Your task to perform on an android device: View the shopping cart on bestbuy.com. Search for razer blade on bestbuy.com, select the first entry, and add it to the cart. Image 0: 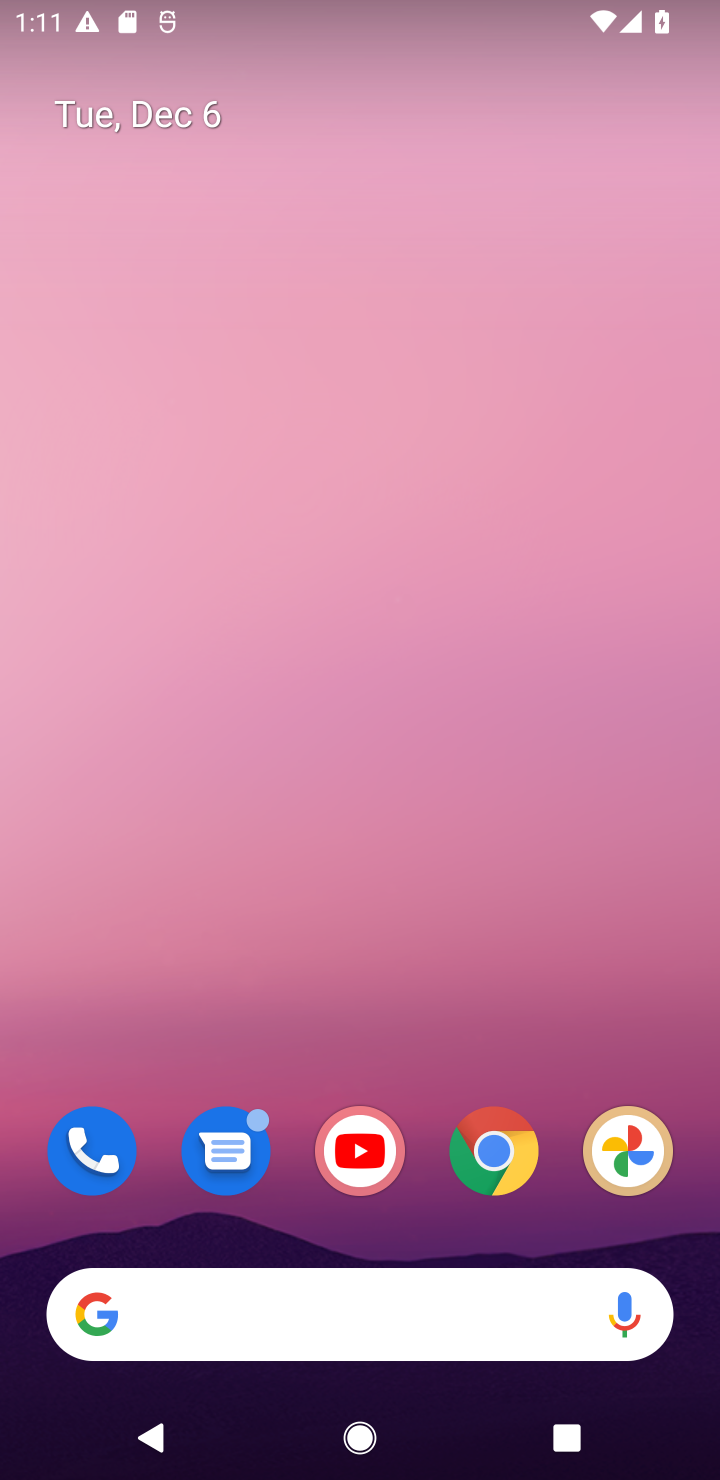
Step 0: click (509, 1149)
Your task to perform on an android device: View the shopping cart on bestbuy.com. Search for razer blade on bestbuy.com, select the first entry, and add it to the cart. Image 1: 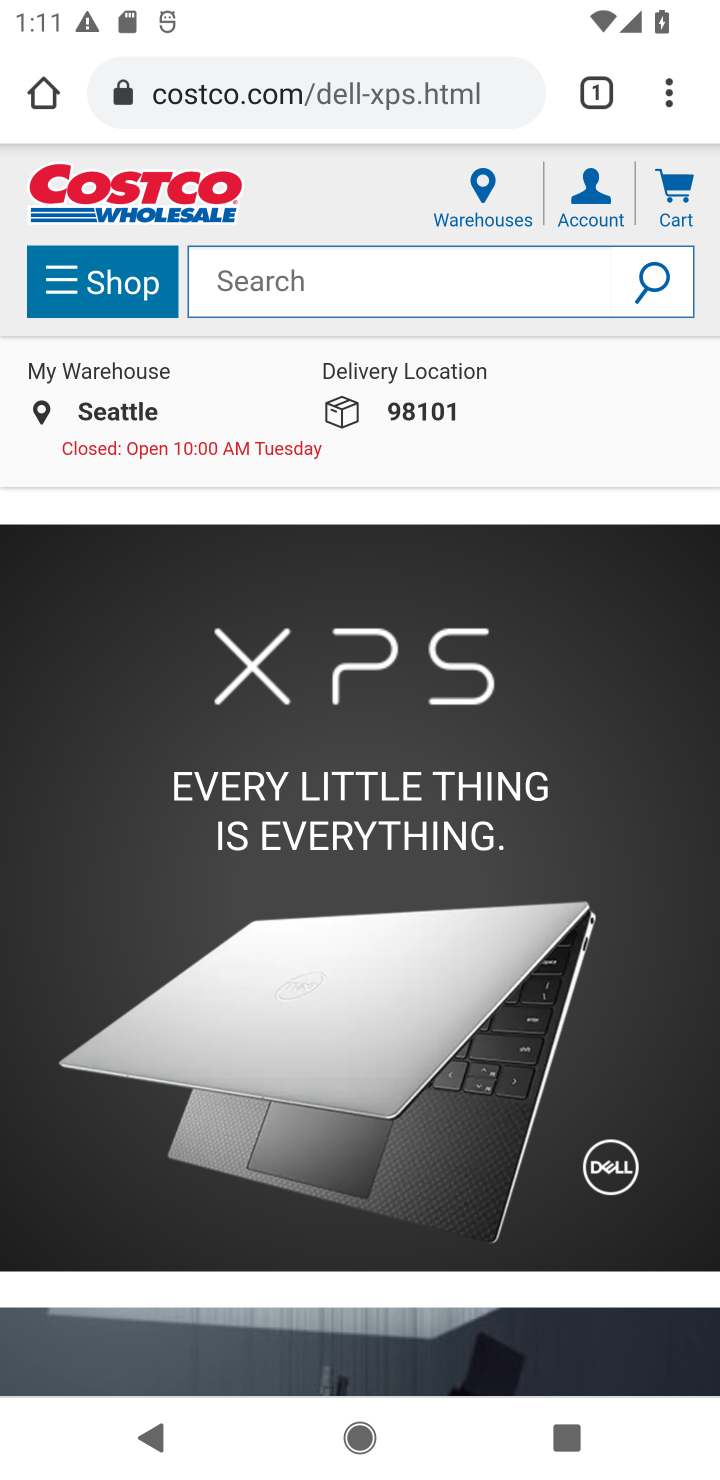
Step 1: click (214, 106)
Your task to perform on an android device: View the shopping cart on bestbuy.com. Search for razer blade on bestbuy.com, select the first entry, and add it to the cart. Image 2: 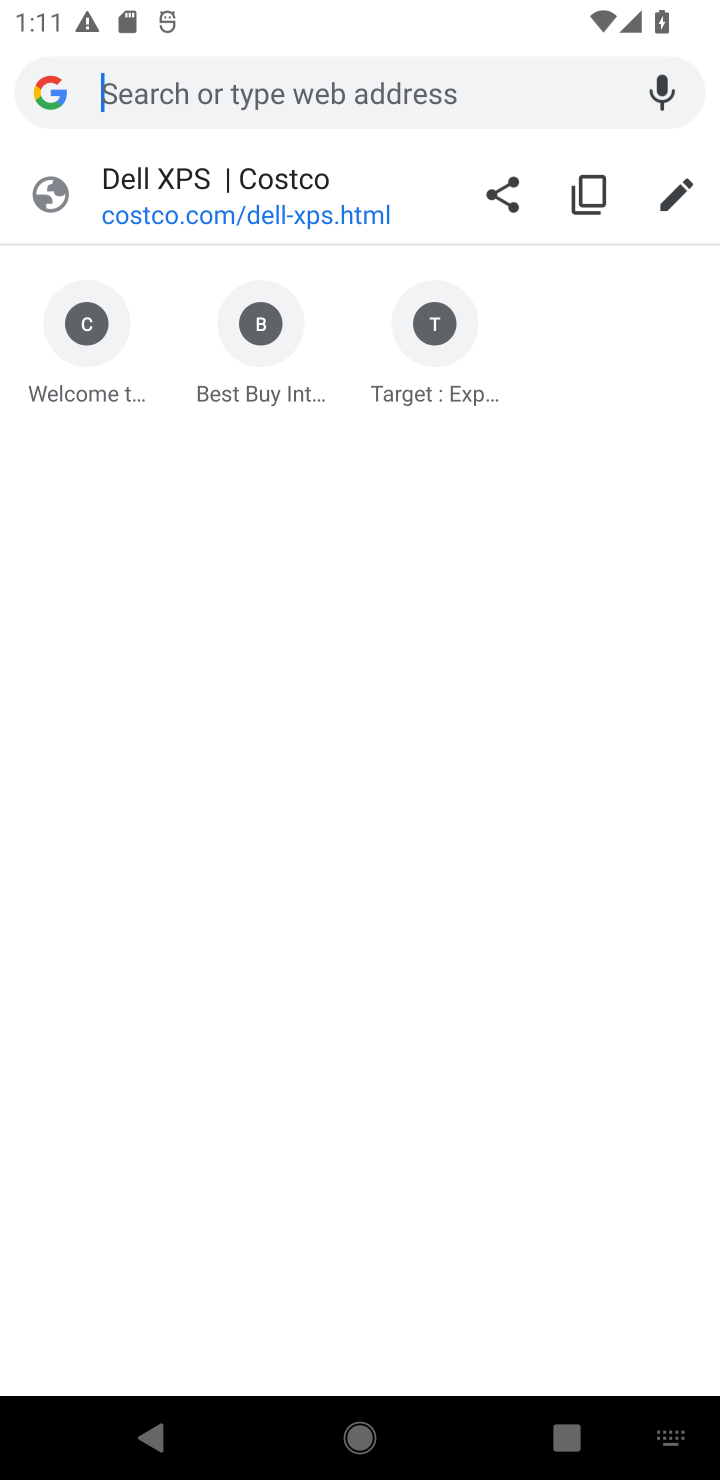
Step 2: click (261, 351)
Your task to perform on an android device: View the shopping cart on bestbuy.com. Search for razer blade on bestbuy.com, select the first entry, and add it to the cart. Image 3: 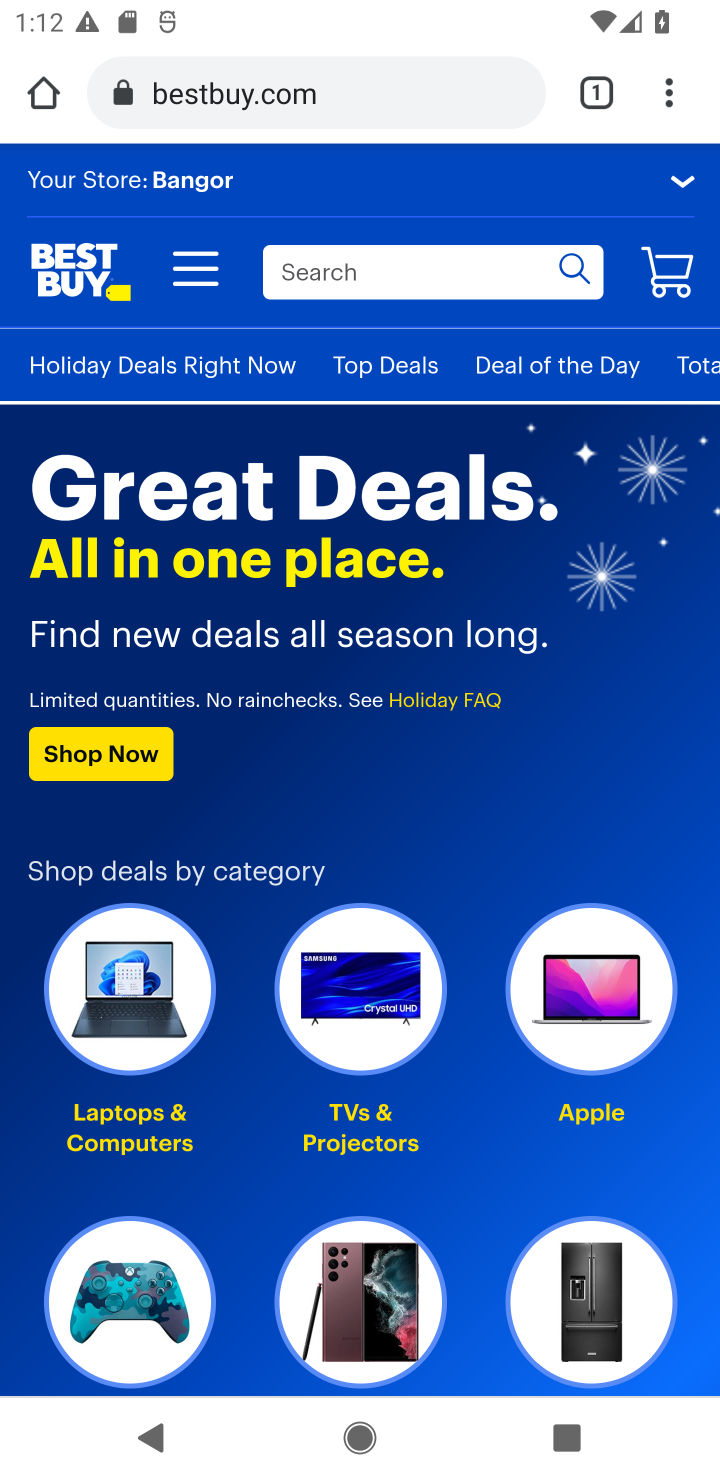
Step 3: click (666, 256)
Your task to perform on an android device: View the shopping cart on bestbuy.com. Search for razer blade on bestbuy.com, select the first entry, and add it to the cart. Image 4: 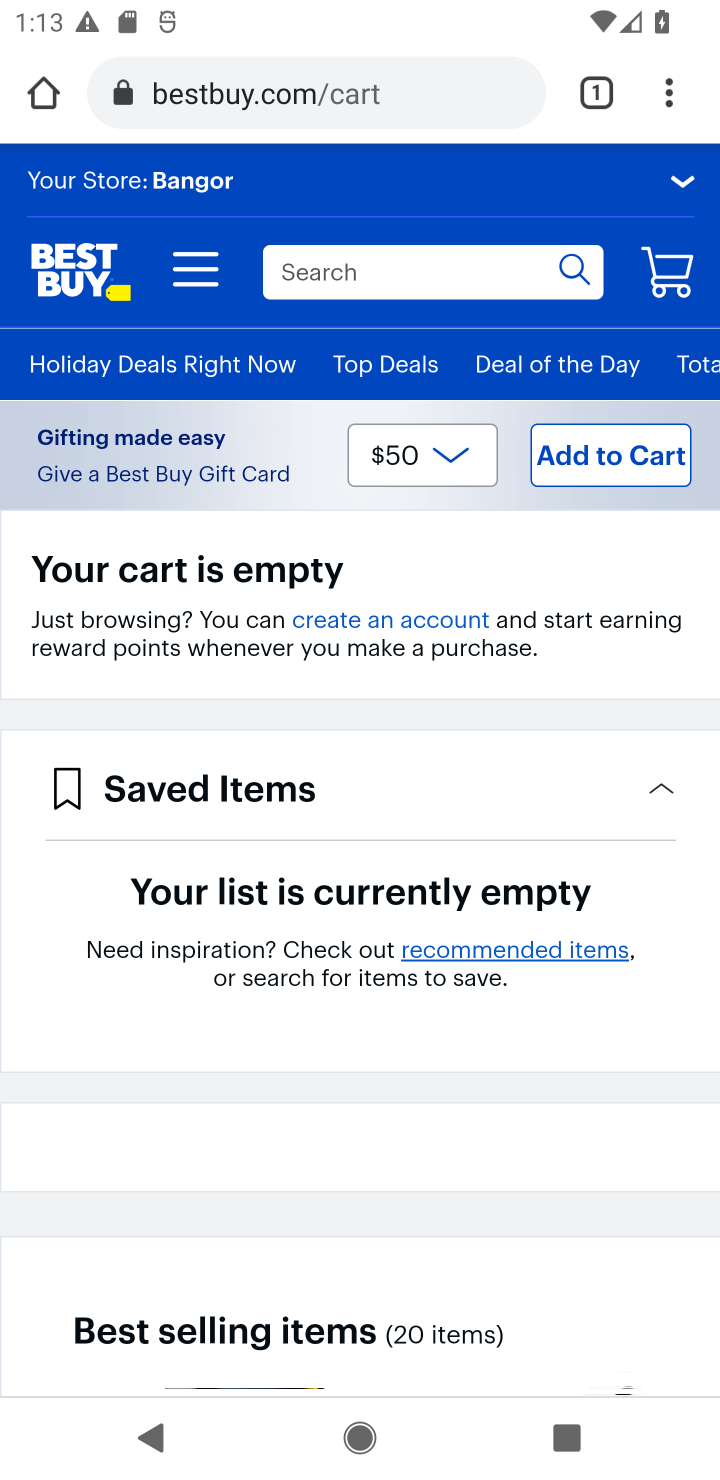
Step 4: click (358, 271)
Your task to perform on an android device: View the shopping cart on bestbuy.com. Search for razer blade on bestbuy.com, select the first entry, and add it to the cart. Image 5: 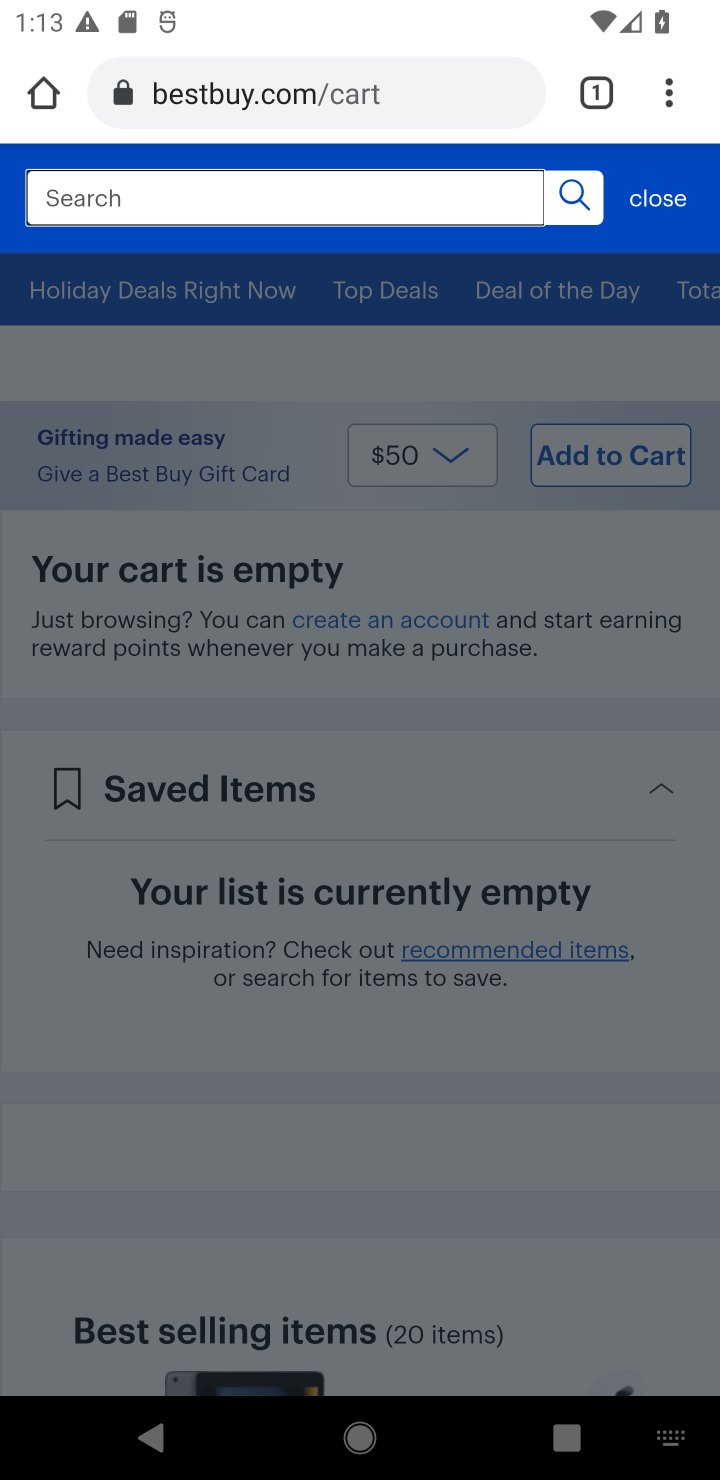
Step 5: type "razer blade "
Your task to perform on an android device: View the shopping cart on bestbuy.com. Search for razer blade on bestbuy.com, select the first entry, and add it to the cart. Image 6: 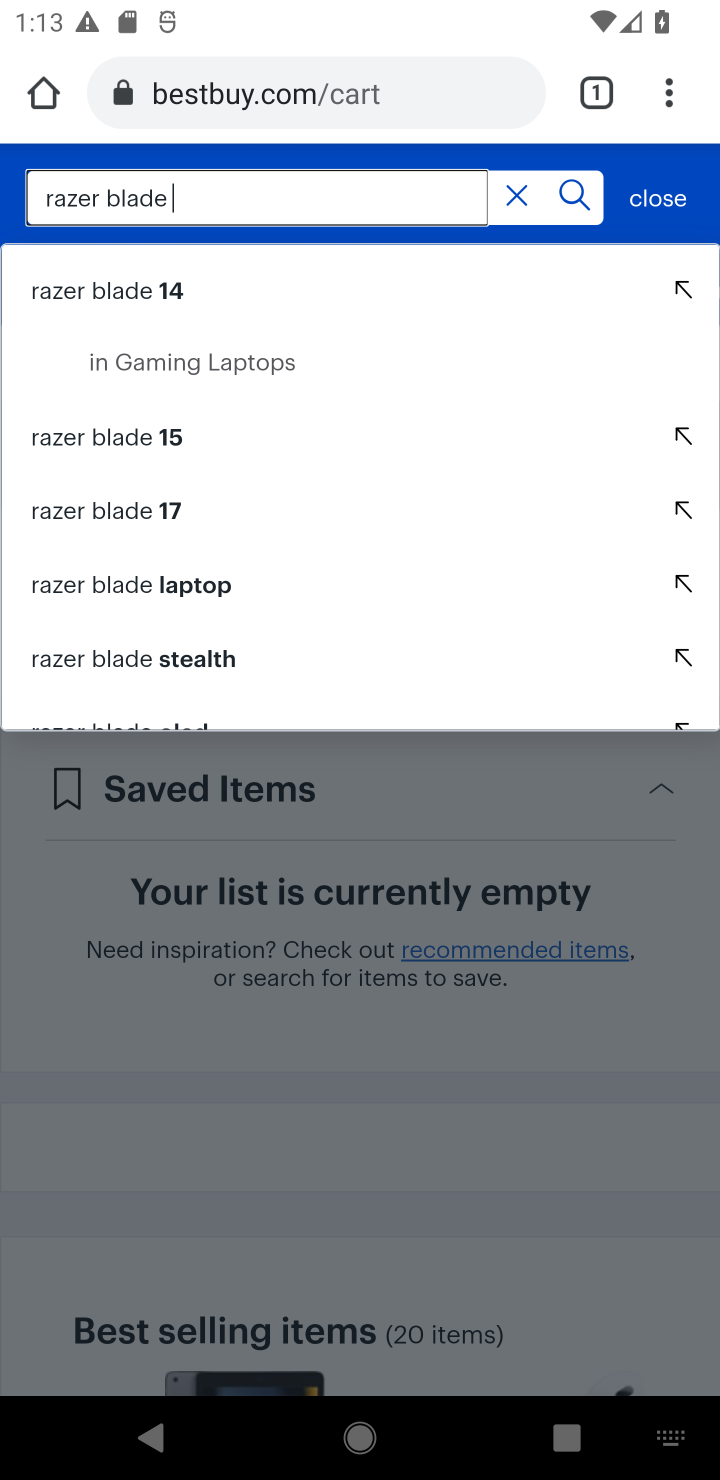
Step 6: click (111, 285)
Your task to perform on an android device: View the shopping cart on bestbuy.com. Search for razer blade on bestbuy.com, select the first entry, and add it to the cart. Image 7: 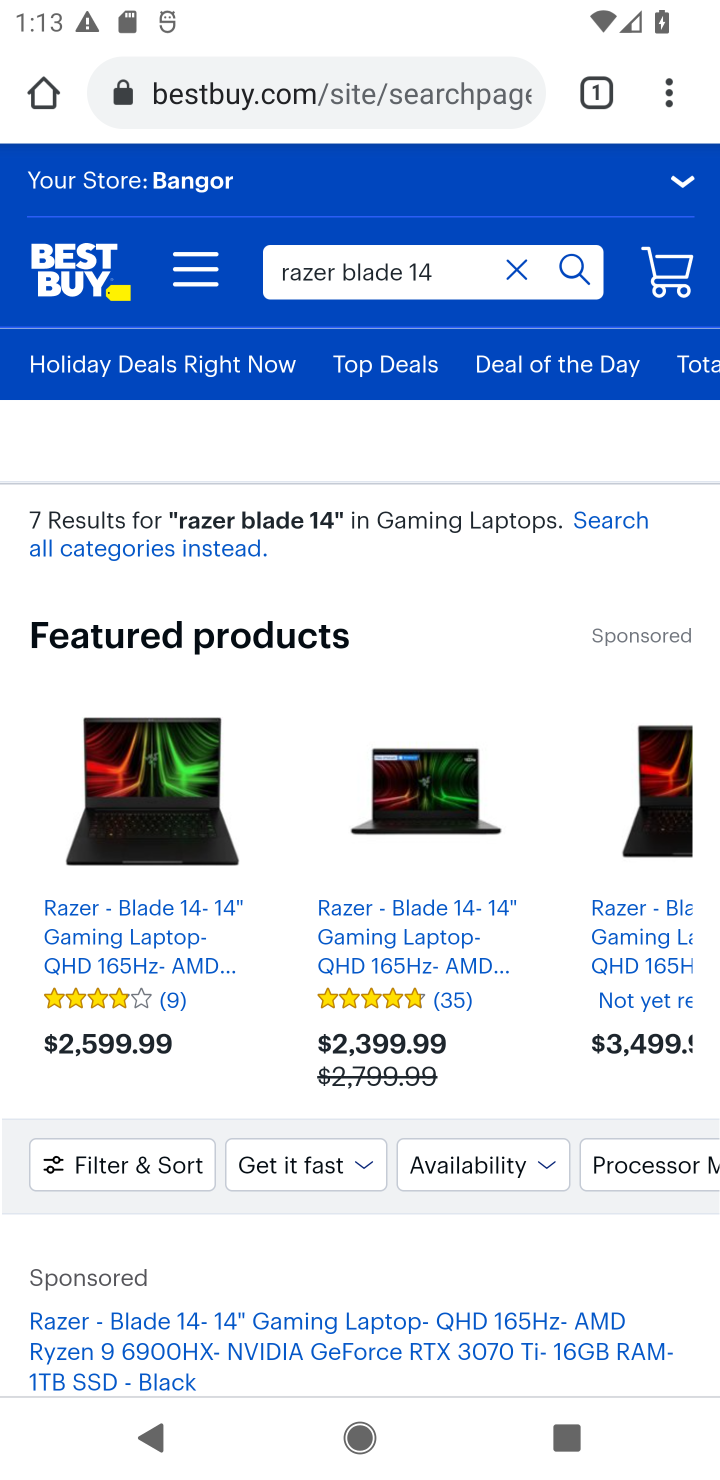
Step 7: drag from (314, 796) to (318, 540)
Your task to perform on an android device: View the shopping cart on bestbuy.com. Search for razer blade on bestbuy.com, select the first entry, and add it to the cart. Image 8: 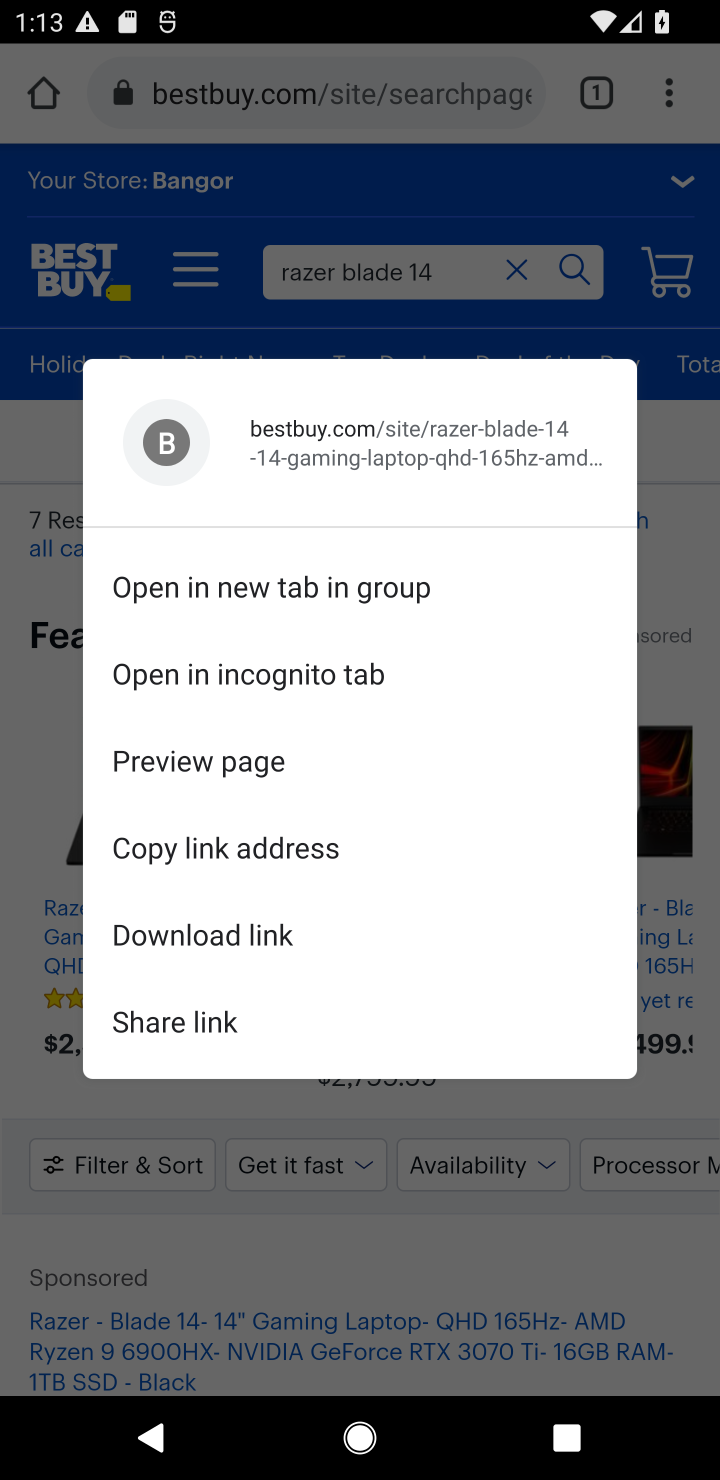
Step 8: drag from (705, 706) to (707, 542)
Your task to perform on an android device: View the shopping cart on bestbuy.com. Search for razer blade on bestbuy.com, select the first entry, and add it to the cart. Image 9: 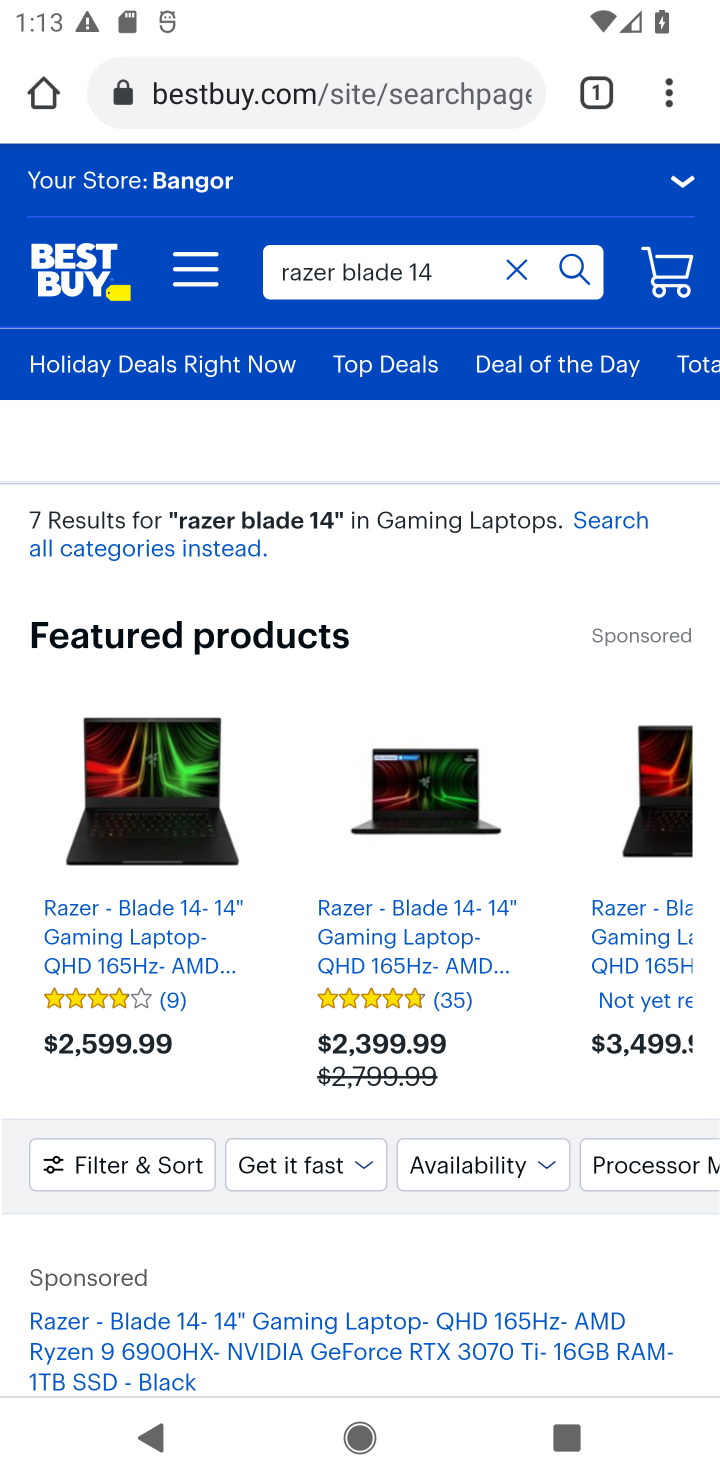
Step 9: drag from (290, 873) to (314, 455)
Your task to perform on an android device: View the shopping cart on bestbuy.com. Search for razer blade on bestbuy.com, select the first entry, and add it to the cart. Image 10: 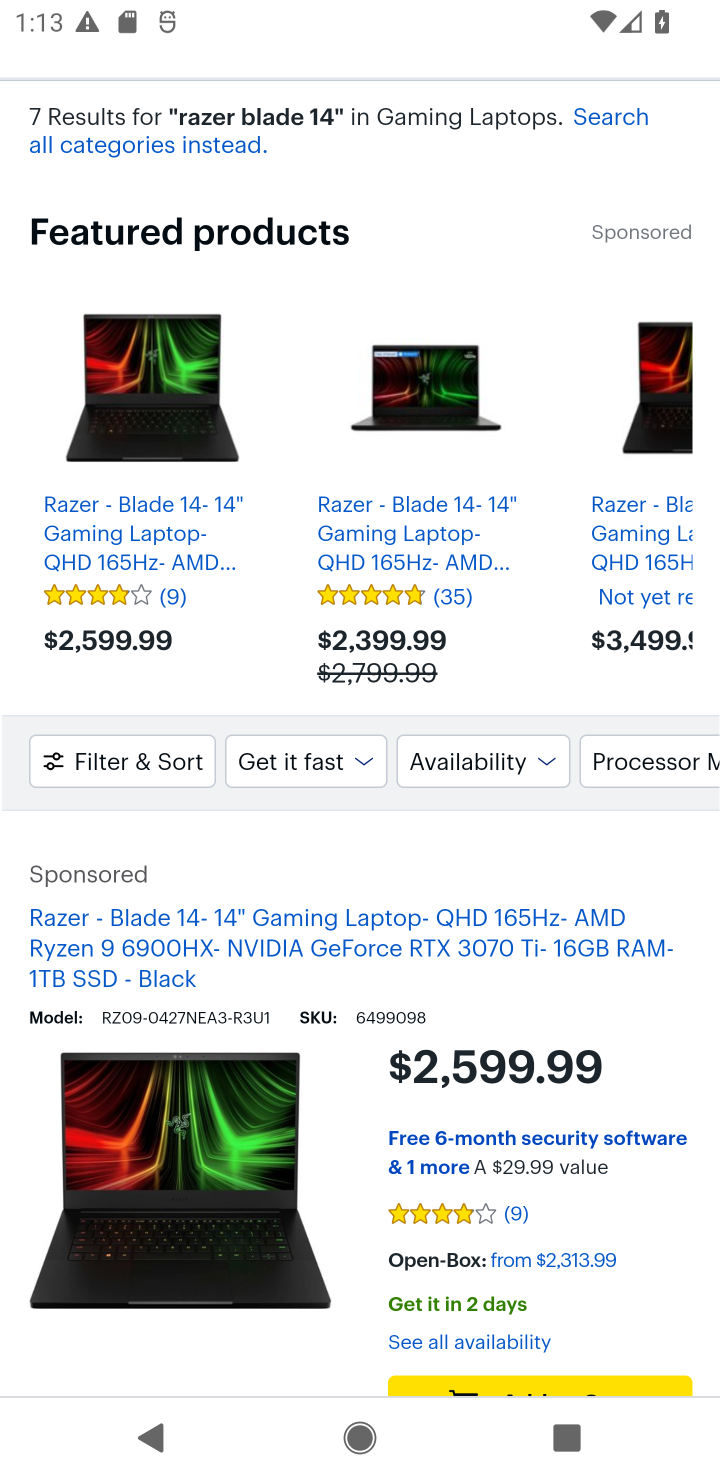
Step 10: click (318, 623)
Your task to perform on an android device: View the shopping cart on bestbuy.com. Search for razer blade on bestbuy.com, select the first entry, and add it to the cart. Image 11: 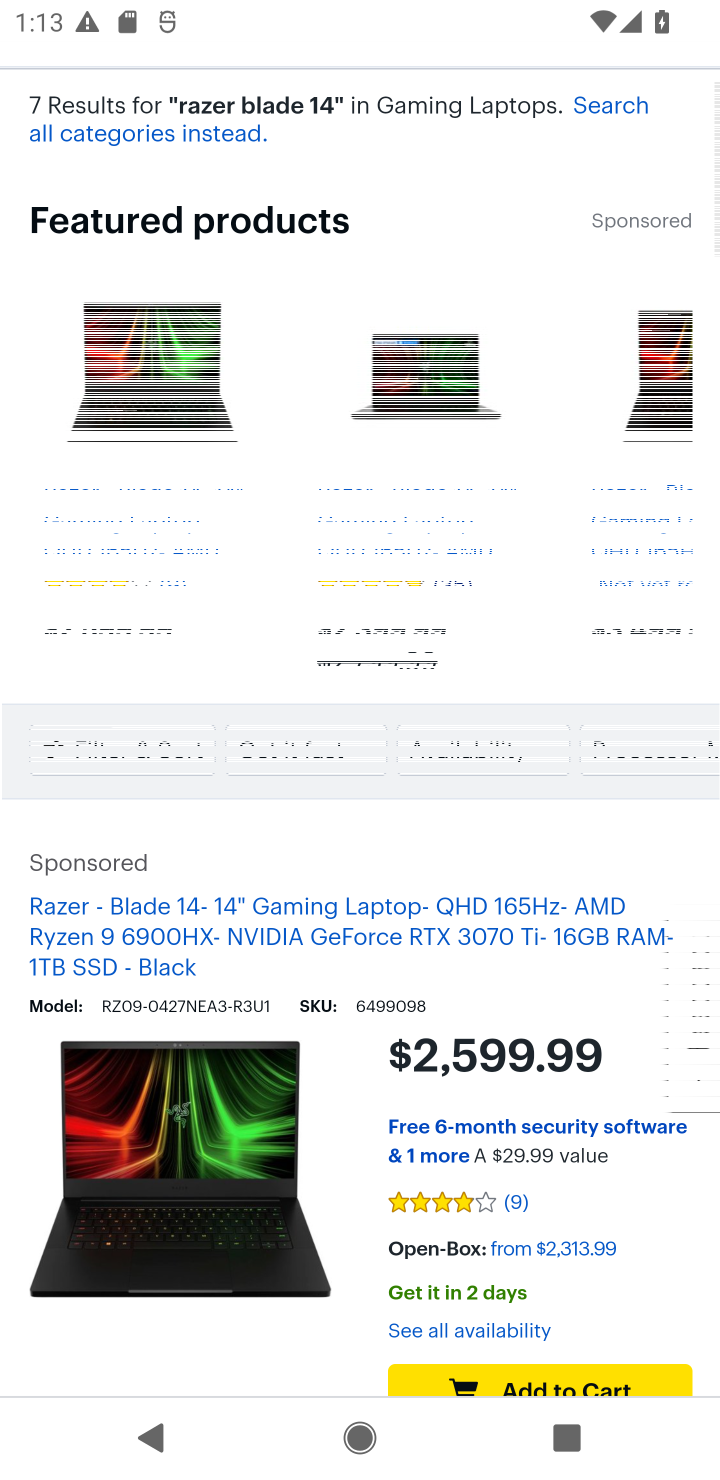
Step 11: drag from (593, 1221) to (585, 641)
Your task to perform on an android device: View the shopping cart on bestbuy.com. Search for razer blade on bestbuy.com, select the first entry, and add it to the cart. Image 12: 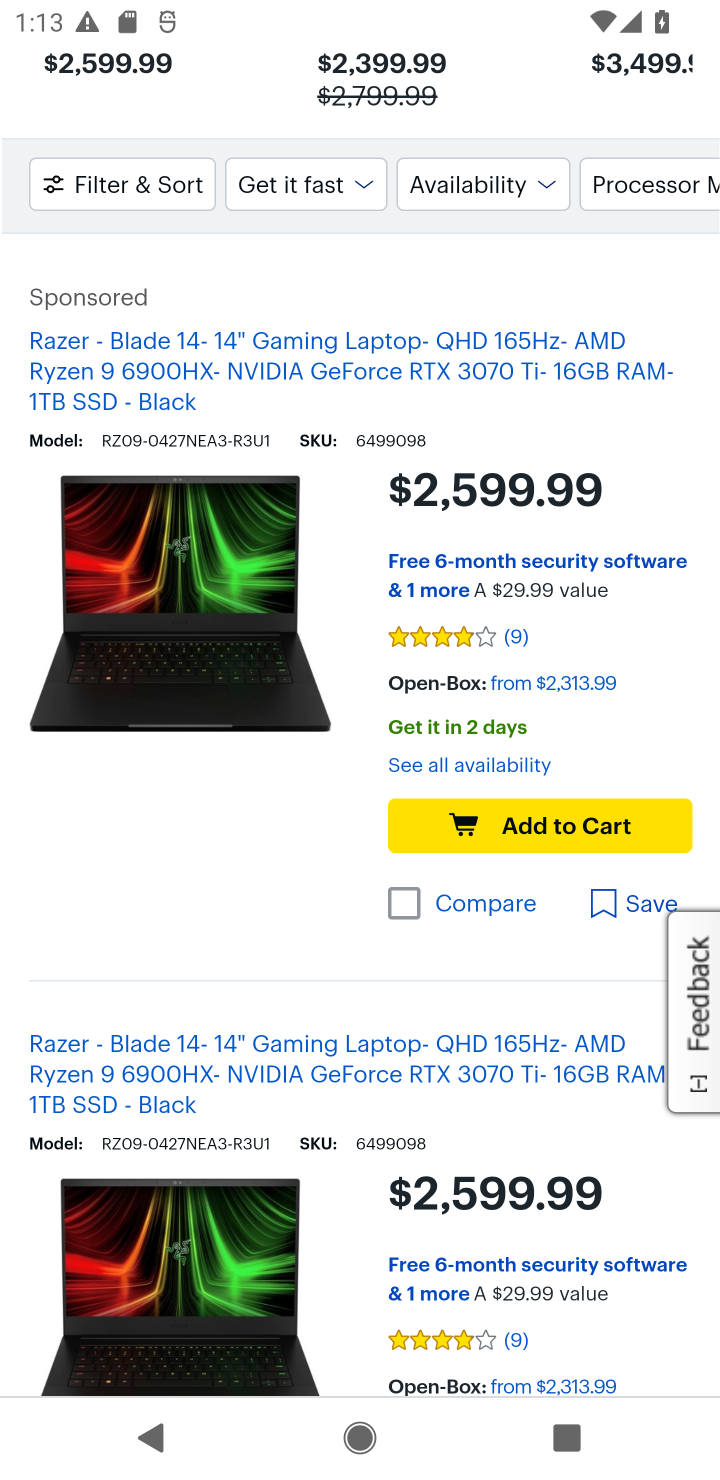
Step 12: click (516, 833)
Your task to perform on an android device: View the shopping cart on bestbuy.com. Search for razer blade on bestbuy.com, select the first entry, and add it to the cart. Image 13: 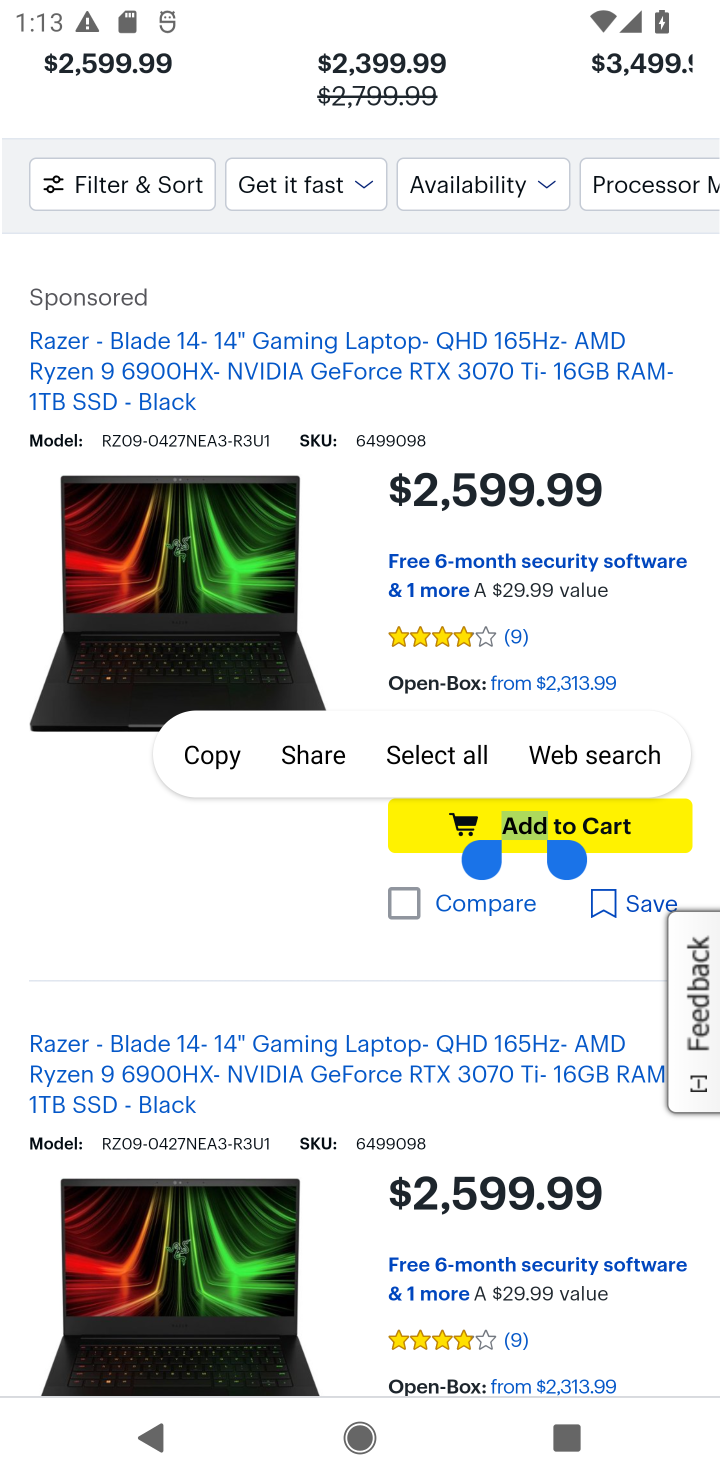
Step 13: click (586, 836)
Your task to perform on an android device: View the shopping cart on bestbuy.com. Search for razer blade on bestbuy.com, select the first entry, and add it to the cart. Image 14: 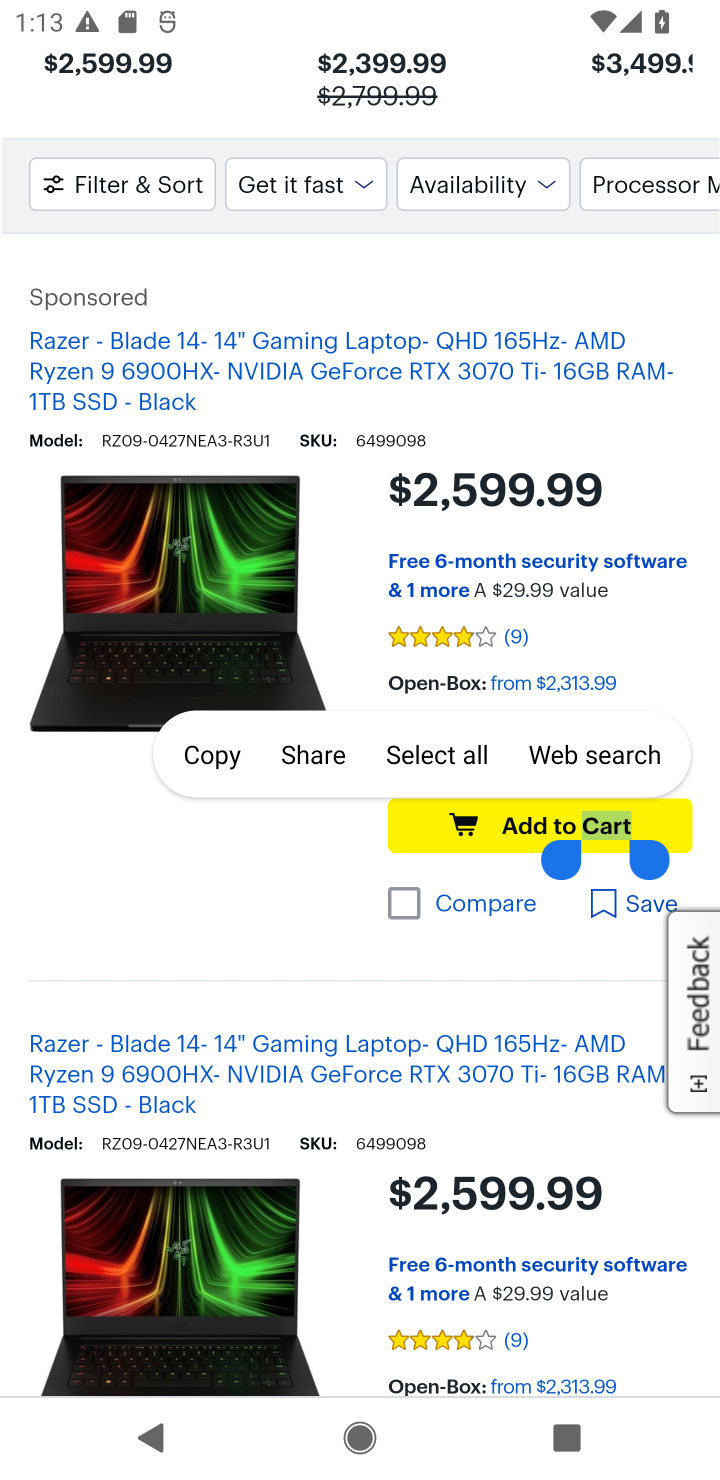
Step 14: click (564, 835)
Your task to perform on an android device: View the shopping cart on bestbuy.com. Search for razer blade on bestbuy.com, select the first entry, and add it to the cart. Image 15: 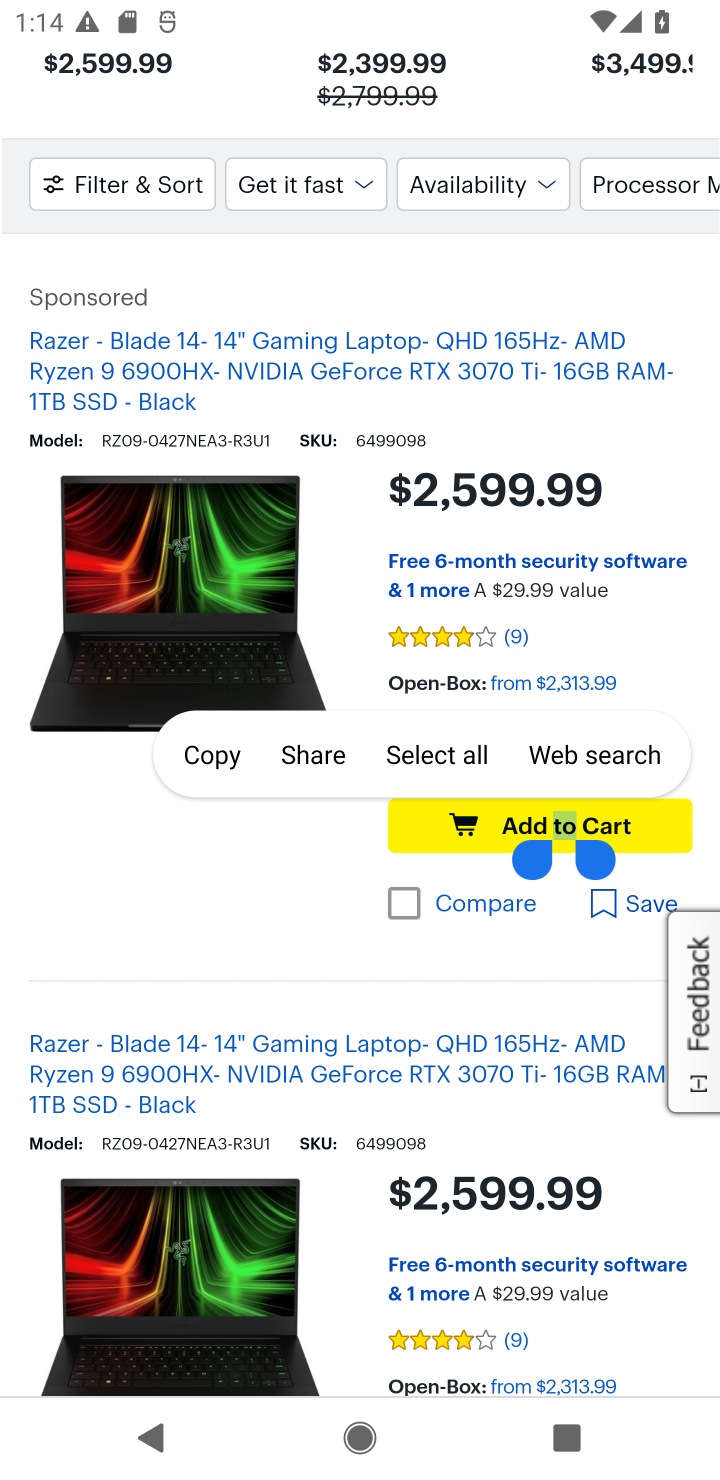
Step 15: click (505, 835)
Your task to perform on an android device: View the shopping cart on bestbuy.com. Search for razer blade on bestbuy.com, select the first entry, and add it to the cart. Image 16: 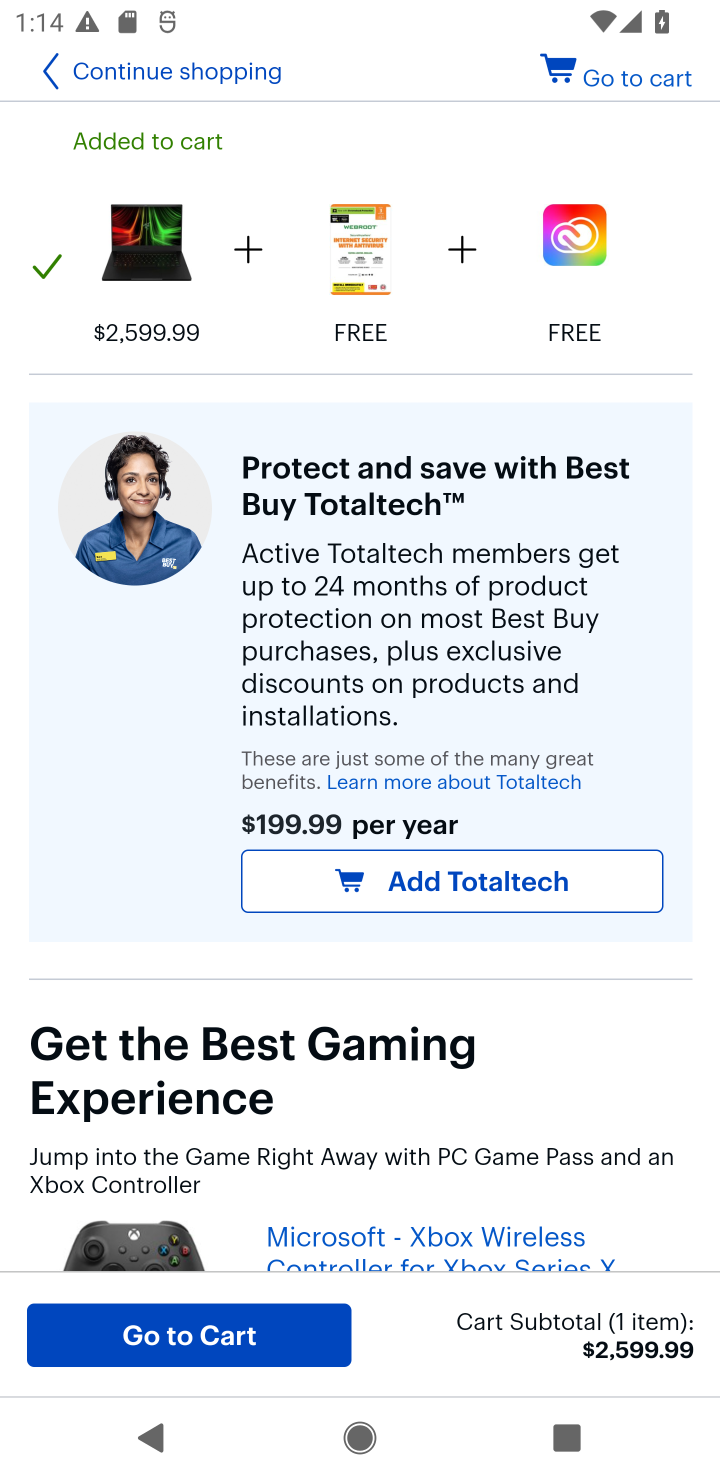
Step 16: task complete